Your task to perform on an android device: Go to location settings Image 0: 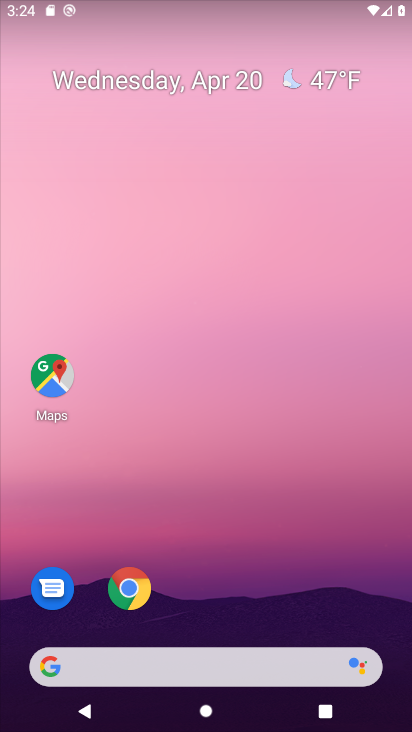
Step 0: drag from (194, 584) to (224, 2)
Your task to perform on an android device: Go to location settings Image 1: 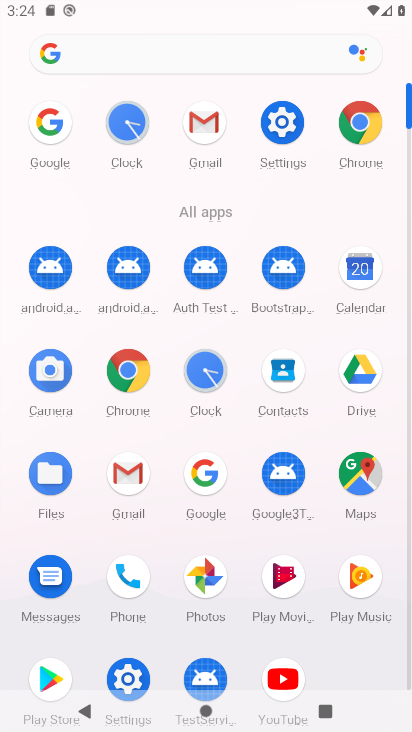
Step 1: click (289, 128)
Your task to perform on an android device: Go to location settings Image 2: 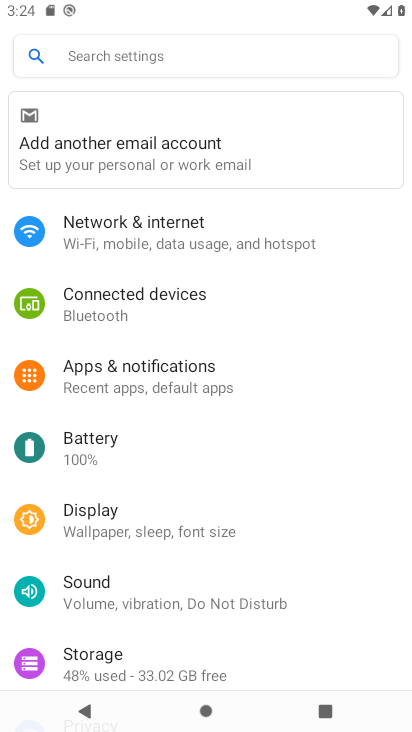
Step 2: drag from (159, 582) to (164, 500)
Your task to perform on an android device: Go to location settings Image 3: 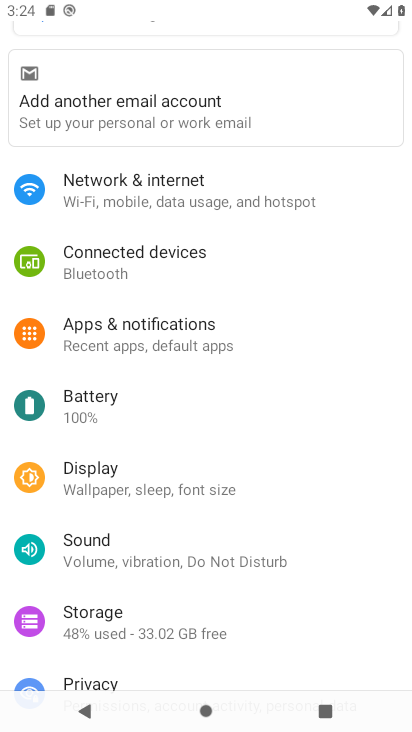
Step 3: drag from (154, 577) to (156, 493)
Your task to perform on an android device: Go to location settings Image 4: 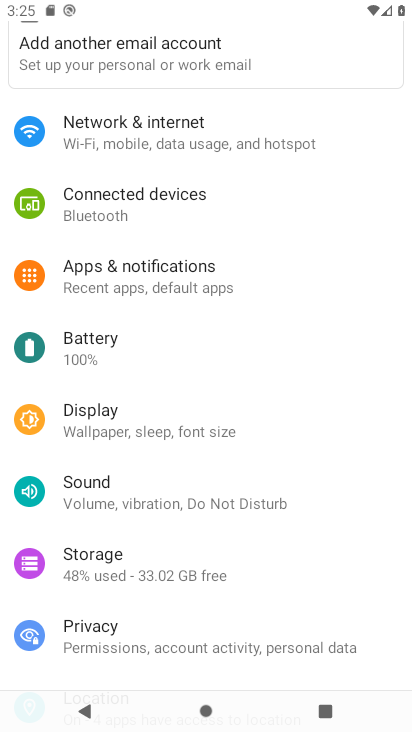
Step 4: drag from (129, 552) to (156, 472)
Your task to perform on an android device: Go to location settings Image 5: 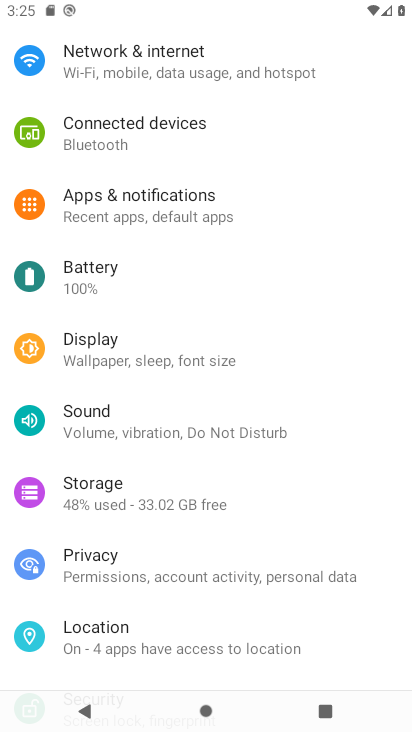
Step 5: drag from (146, 529) to (157, 462)
Your task to perform on an android device: Go to location settings Image 6: 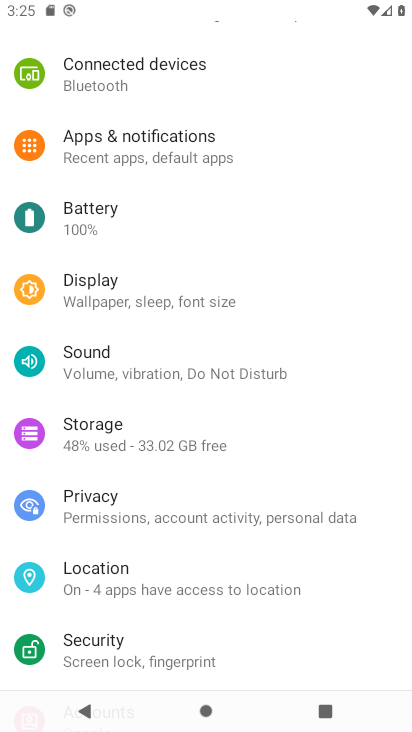
Step 6: click (85, 595)
Your task to perform on an android device: Go to location settings Image 7: 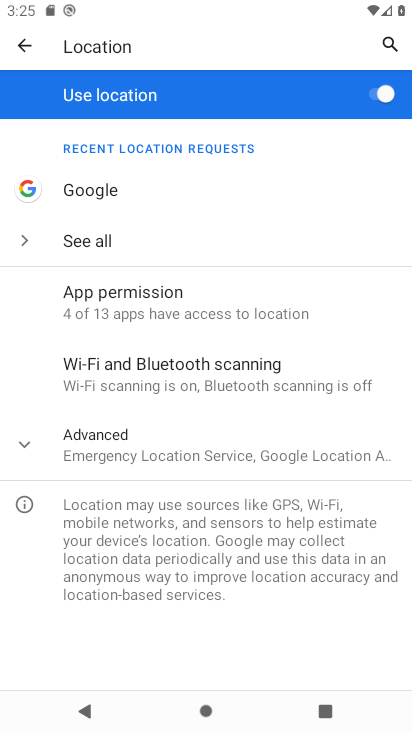
Step 7: task complete